Your task to perform on an android device: Open calendar and show me the fourth week of next month Image 0: 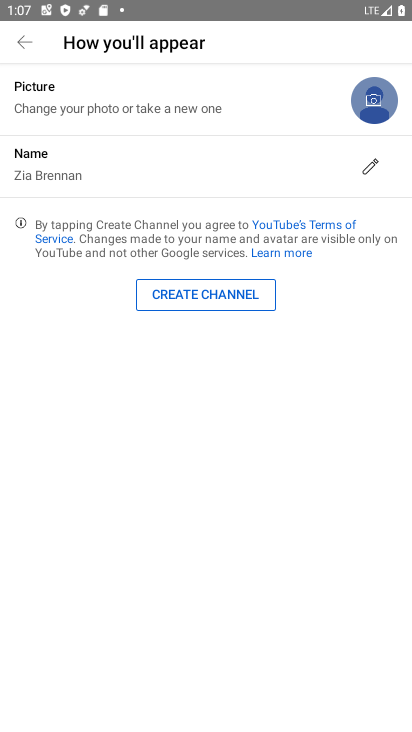
Step 0: press home button
Your task to perform on an android device: Open calendar and show me the fourth week of next month Image 1: 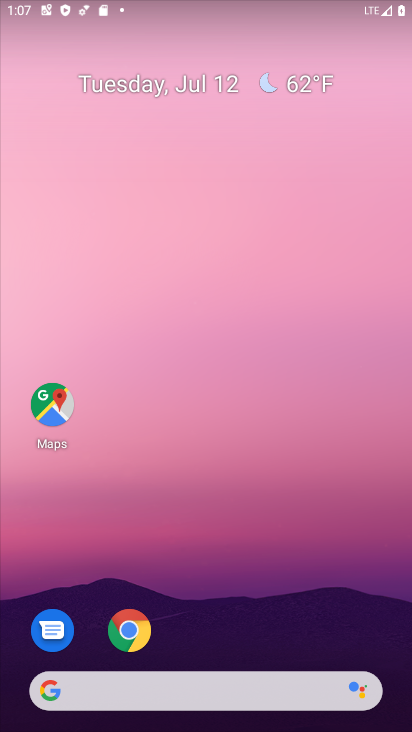
Step 1: drag from (191, 613) to (249, 138)
Your task to perform on an android device: Open calendar and show me the fourth week of next month Image 2: 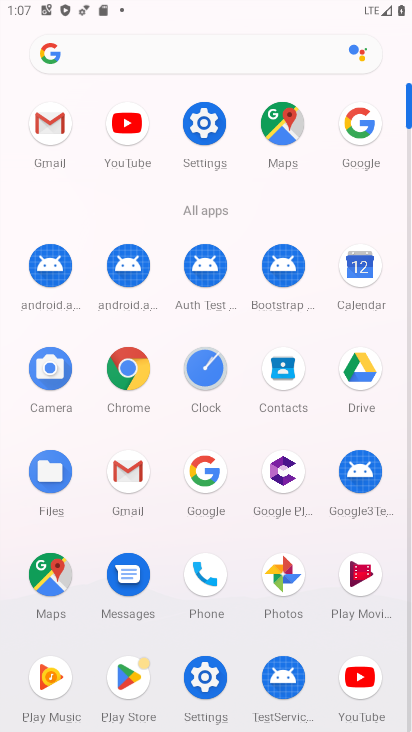
Step 2: click (362, 268)
Your task to perform on an android device: Open calendar and show me the fourth week of next month Image 3: 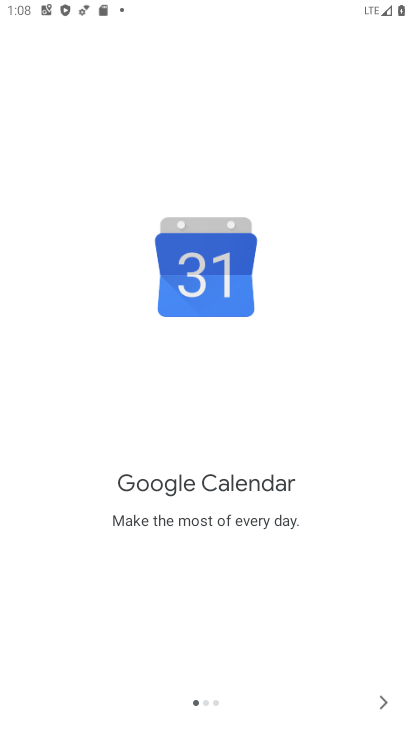
Step 3: click (382, 697)
Your task to perform on an android device: Open calendar and show me the fourth week of next month Image 4: 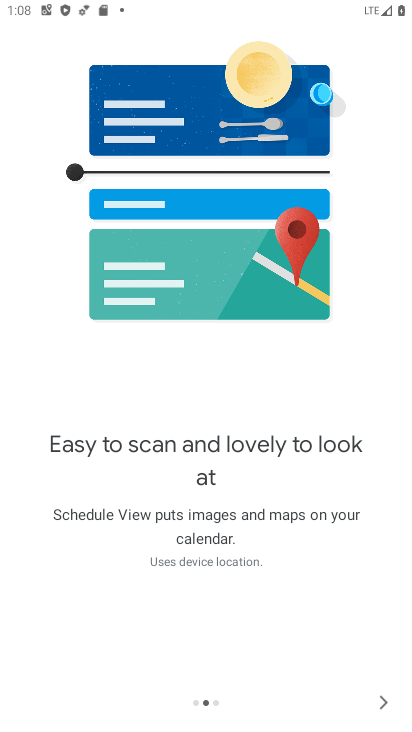
Step 4: click (382, 697)
Your task to perform on an android device: Open calendar and show me the fourth week of next month Image 5: 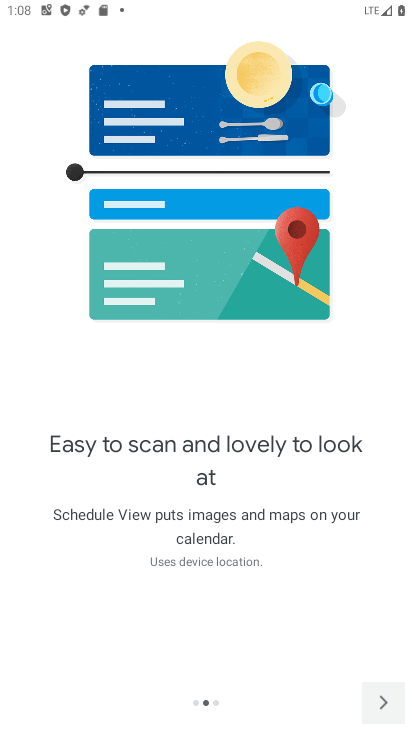
Step 5: click (382, 697)
Your task to perform on an android device: Open calendar and show me the fourth week of next month Image 6: 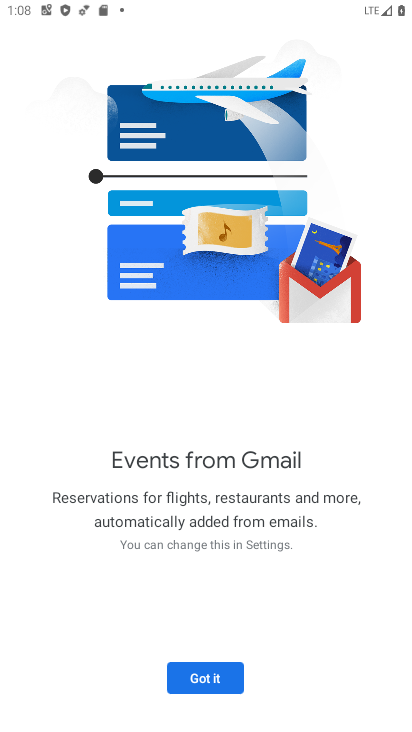
Step 6: click (201, 675)
Your task to perform on an android device: Open calendar and show me the fourth week of next month Image 7: 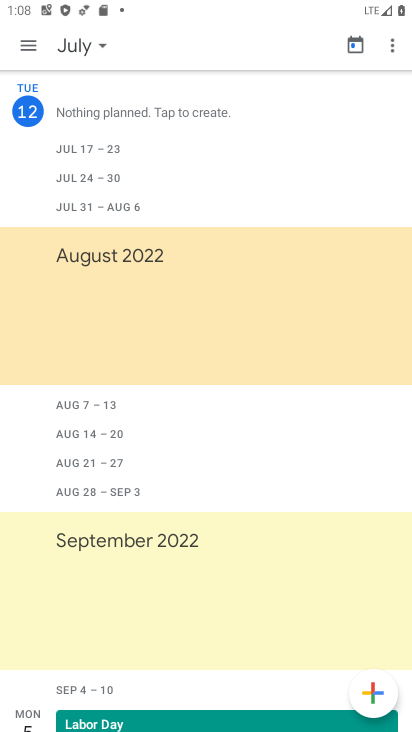
Step 7: click (97, 49)
Your task to perform on an android device: Open calendar and show me the fourth week of next month Image 8: 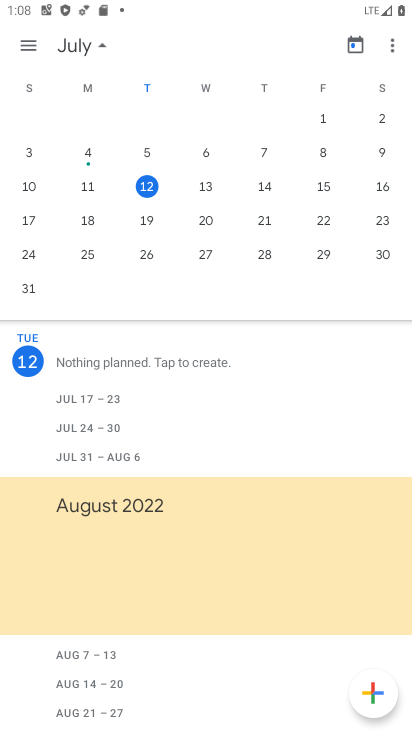
Step 8: drag from (390, 299) to (2, 277)
Your task to perform on an android device: Open calendar and show me the fourth week of next month Image 9: 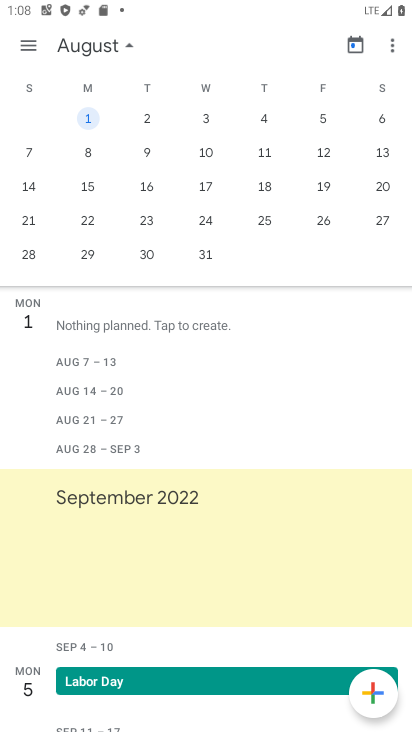
Step 9: click (261, 218)
Your task to perform on an android device: Open calendar and show me the fourth week of next month Image 10: 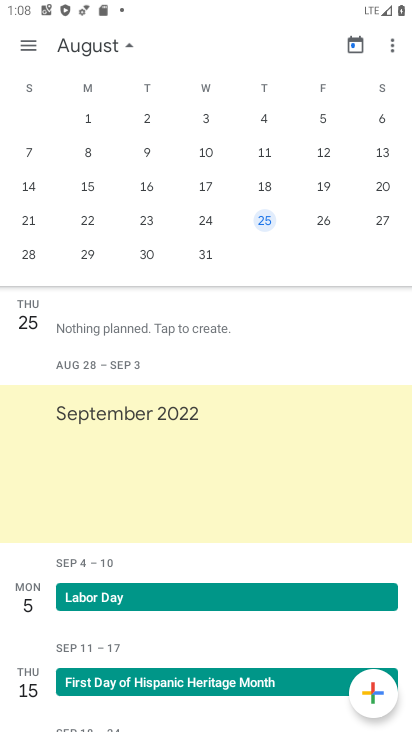
Step 10: task complete